Your task to perform on an android device: turn off location history Image 0: 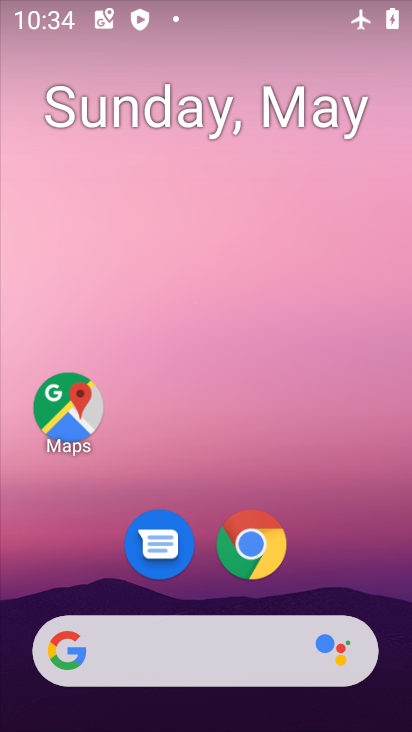
Step 0: drag from (337, 519) to (356, 258)
Your task to perform on an android device: turn off location history Image 1: 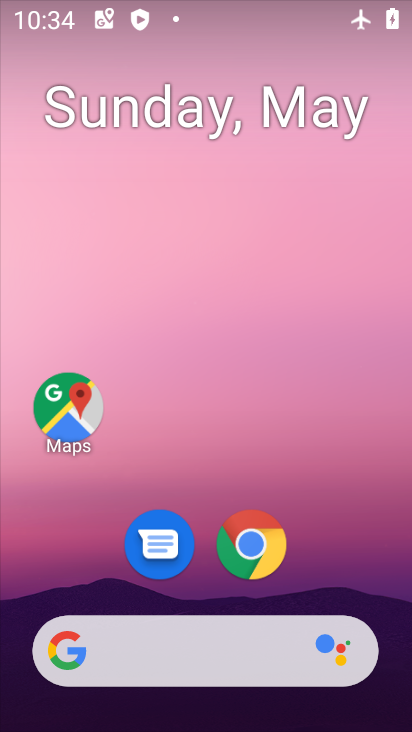
Step 1: drag from (350, 567) to (327, 281)
Your task to perform on an android device: turn off location history Image 2: 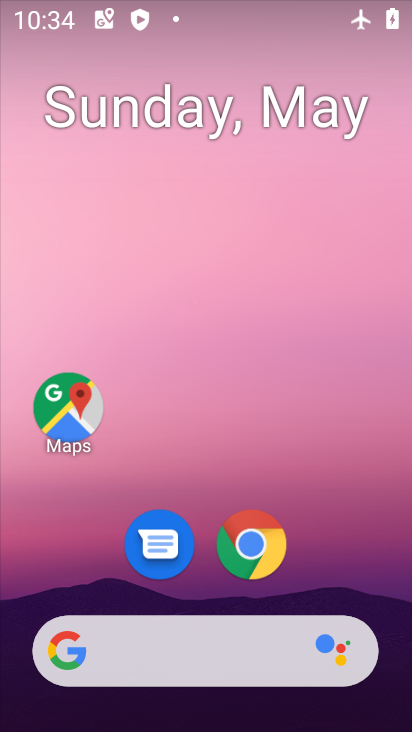
Step 2: drag from (284, 569) to (318, 226)
Your task to perform on an android device: turn off location history Image 3: 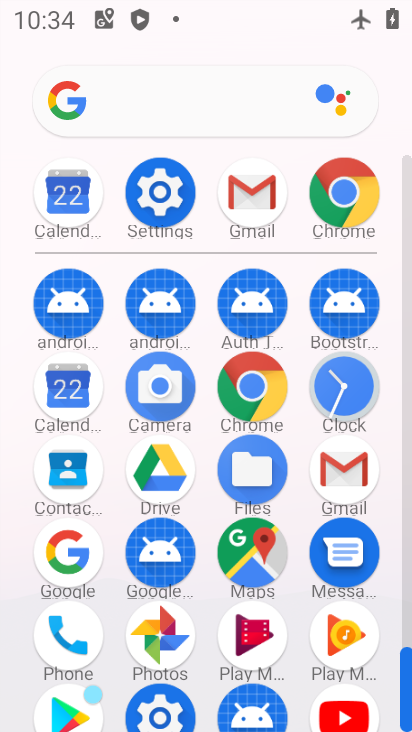
Step 3: click (164, 175)
Your task to perform on an android device: turn off location history Image 4: 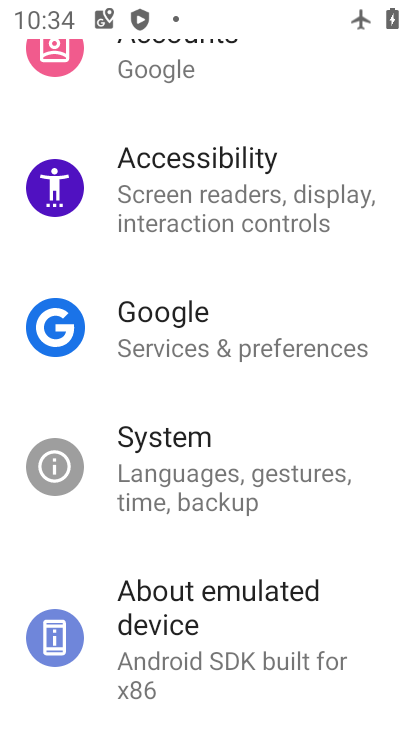
Step 4: drag from (253, 628) to (270, 160)
Your task to perform on an android device: turn off location history Image 5: 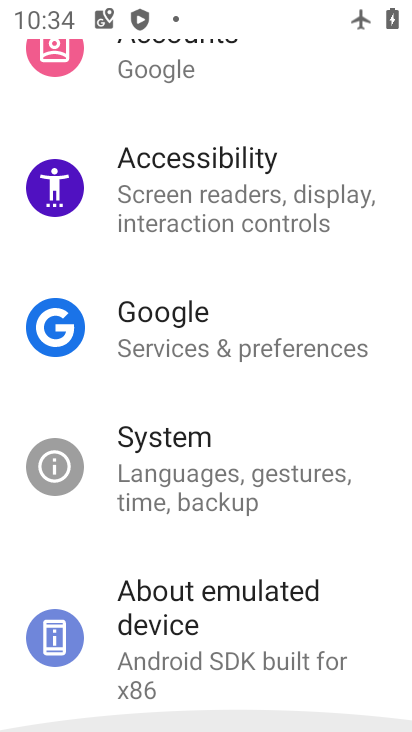
Step 5: drag from (259, 219) to (242, 610)
Your task to perform on an android device: turn off location history Image 6: 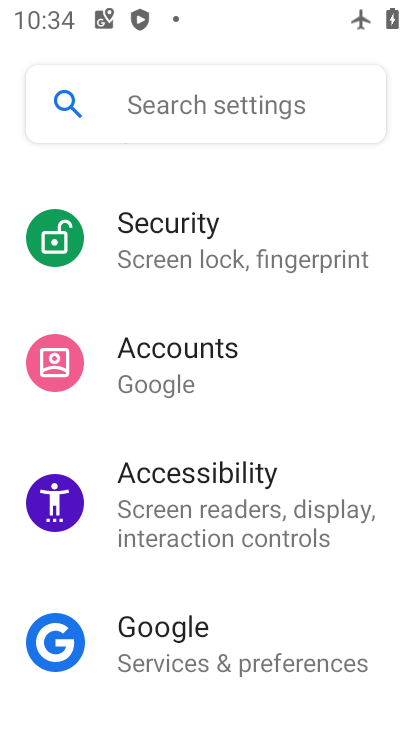
Step 6: drag from (259, 634) to (327, 108)
Your task to perform on an android device: turn off location history Image 7: 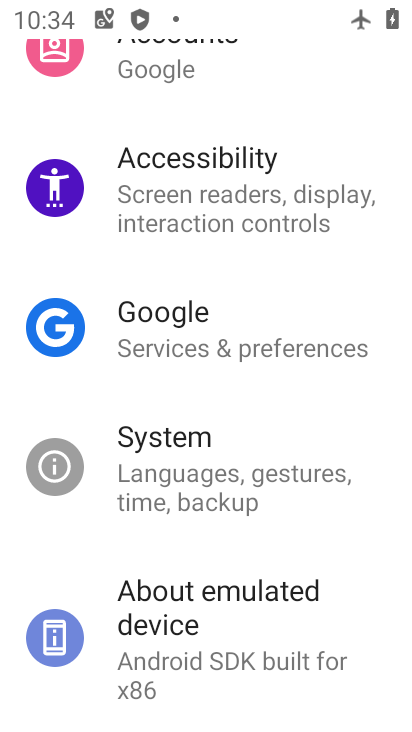
Step 7: drag from (255, 168) to (199, 687)
Your task to perform on an android device: turn off location history Image 8: 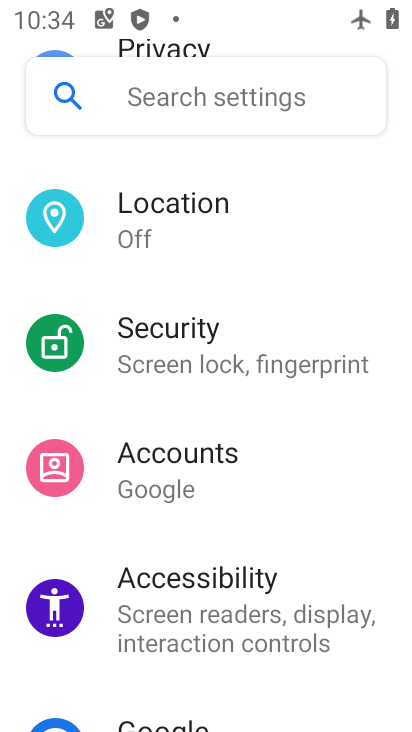
Step 8: click (221, 199)
Your task to perform on an android device: turn off location history Image 9: 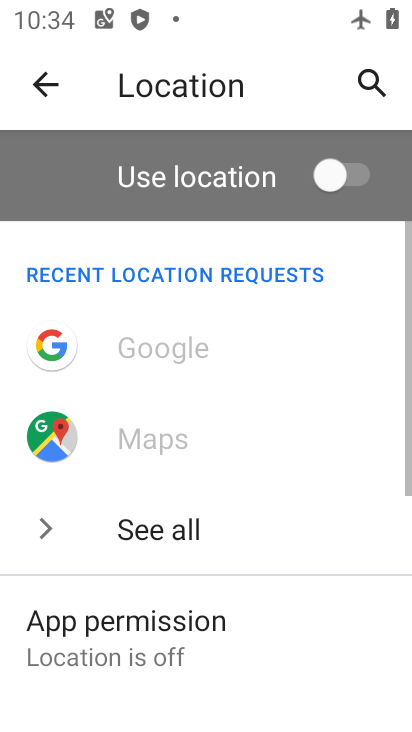
Step 9: drag from (193, 640) to (284, 206)
Your task to perform on an android device: turn off location history Image 10: 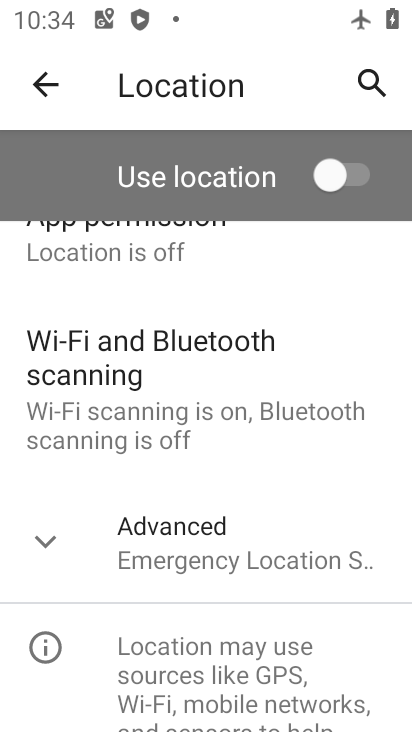
Step 10: click (215, 540)
Your task to perform on an android device: turn off location history Image 11: 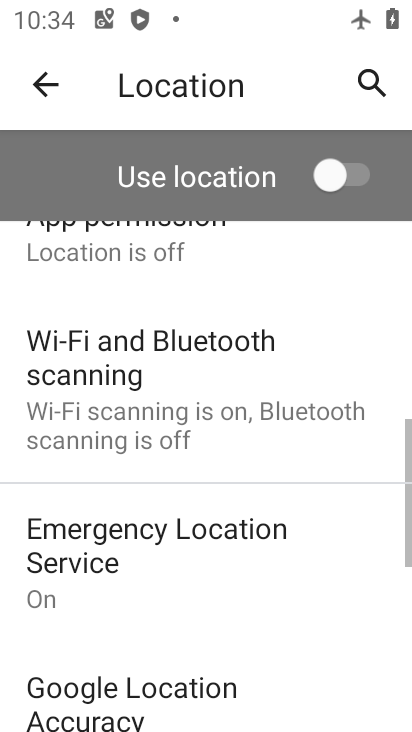
Step 11: drag from (188, 644) to (271, 276)
Your task to perform on an android device: turn off location history Image 12: 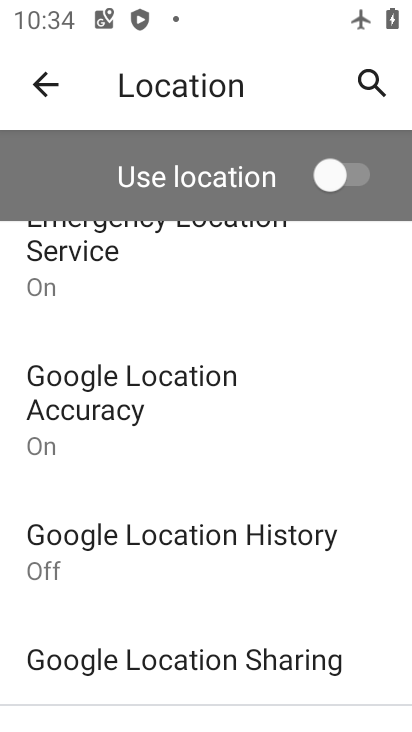
Step 12: click (188, 530)
Your task to perform on an android device: turn off location history Image 13: 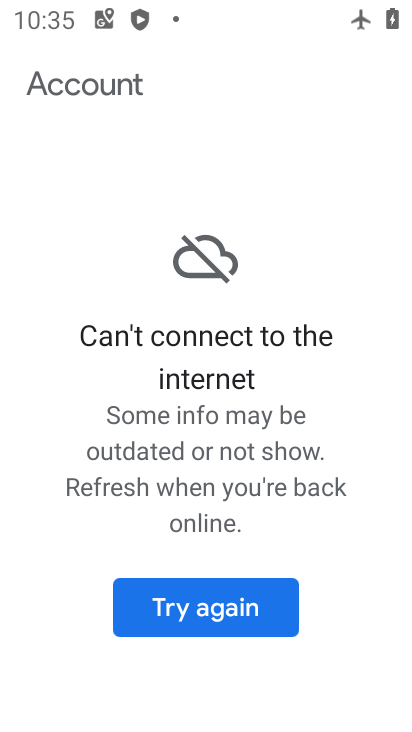
Step 13: task complete